Your task to perform on an android device: Go to accessibility settings Image 0: 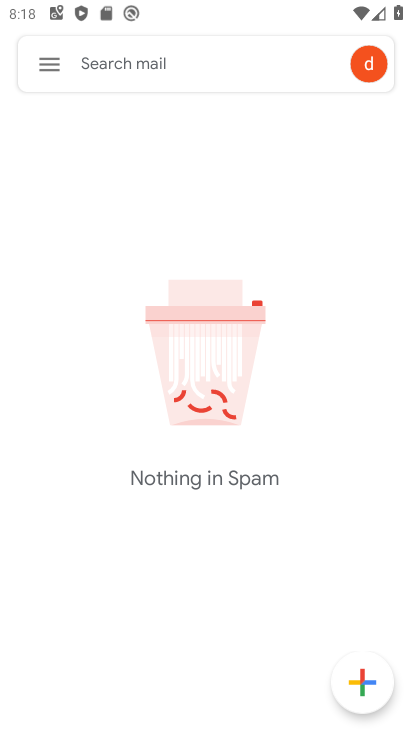
Step 0: press home button
Your task to perform on an android device: Go to accessibility settings Image 1: 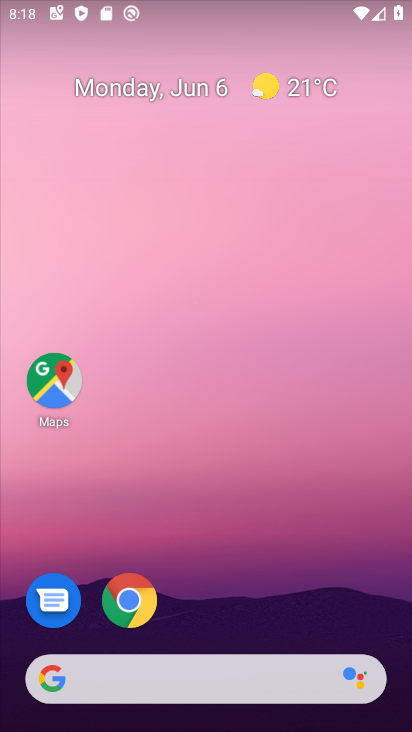
Step 1: drag from (382, 613) to (315, 82)
Your task to perform on an android device: Go to accessibility settings Image 2: 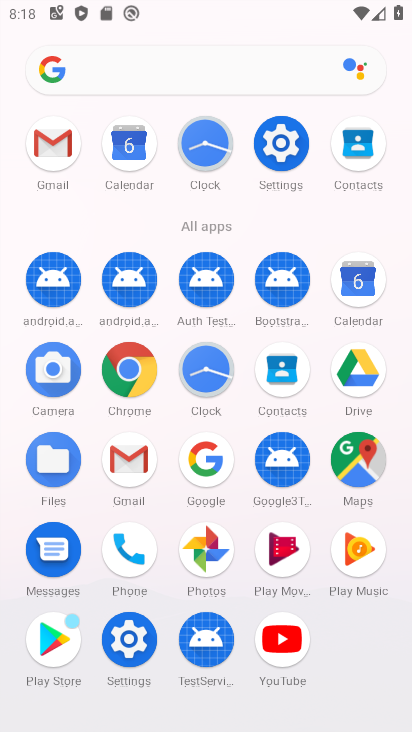
Step 2: click (128, 638)
Your task to perform on an android device: Go to accessibility settings Image 3: 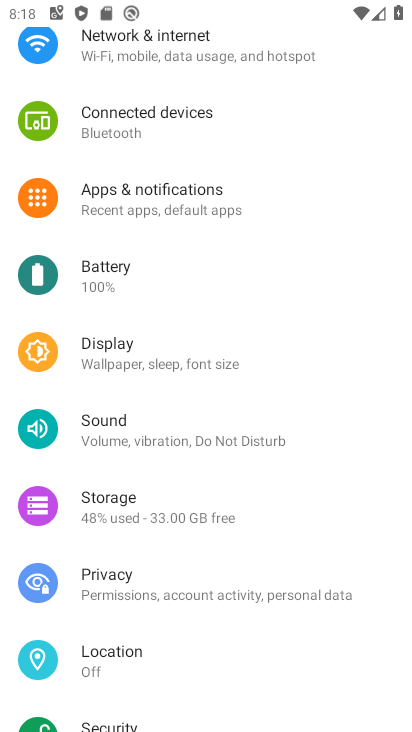
Step 3: drag from (374, 661) to (334, 278)
Your task to perform on an android device: Go to accessibility settings Image 4: 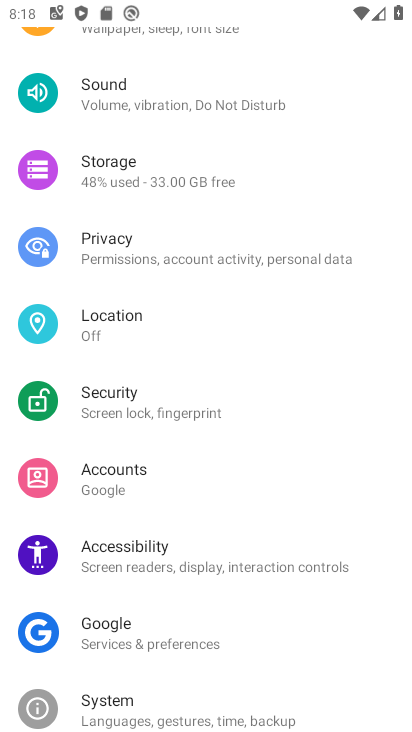
Step 4: click (121, 560)
Your task to perform on an android device: Go to accessibility settings Image 5: 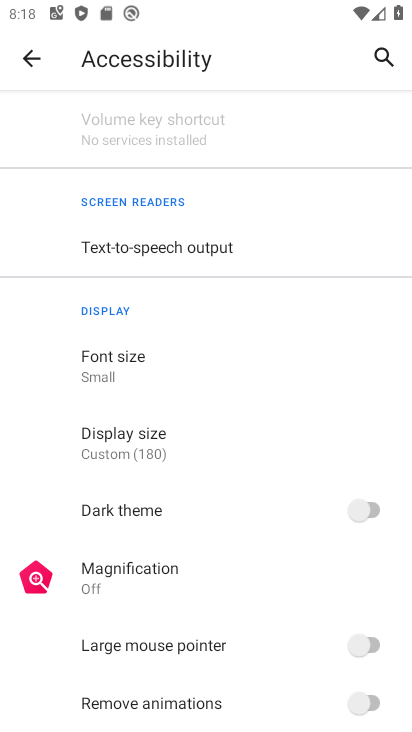
Step 5: task complete